Your task to perform on an android device: Open Google Maps and go to "Timeline" Image 0: 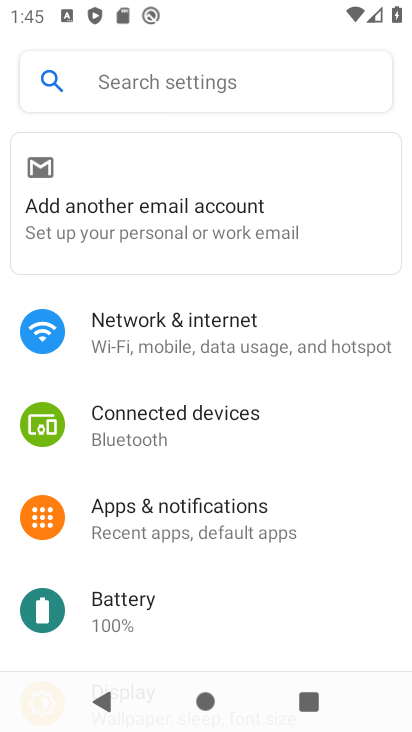
Step 0: press home button
Your task to perform on an android device: Open Google Maps and go to "Timeline" Image 1: 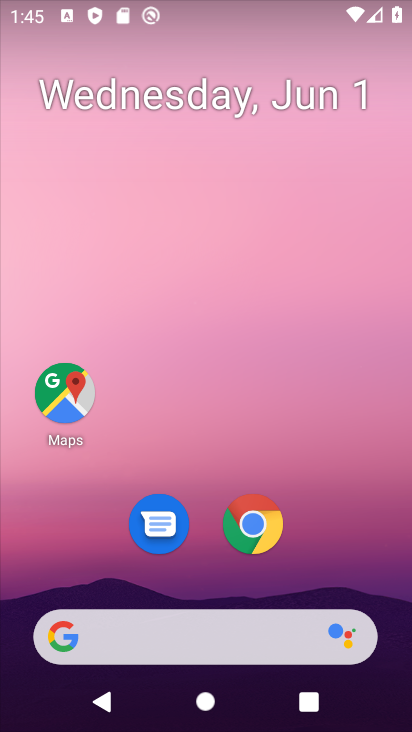
Step 1: click (60, 378)
Your task to perform on an android device: Open Google Maps and go to "Timeline" Image 2: 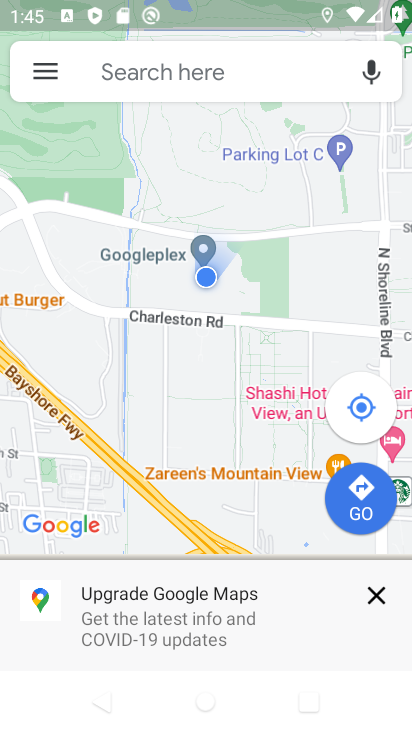
Step 2: click (46, 69)
Your task to perform on an android device: Open Google Maps and go to "Timeline" Image 3: 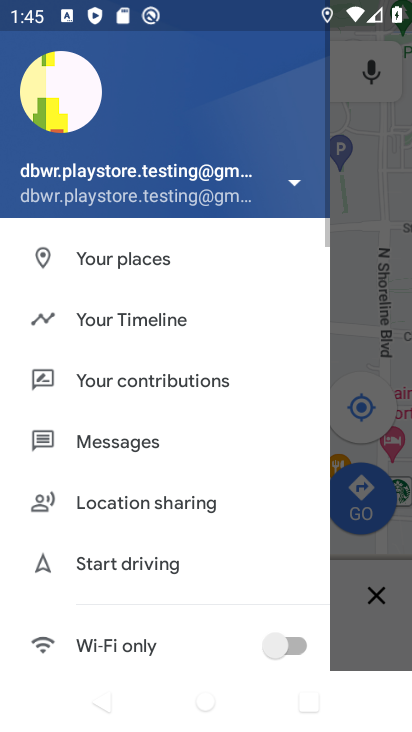
Step 3: click (155, 317)
Your task to perform on an android device: Open Google Maps and go to "Timeline" Image 4: 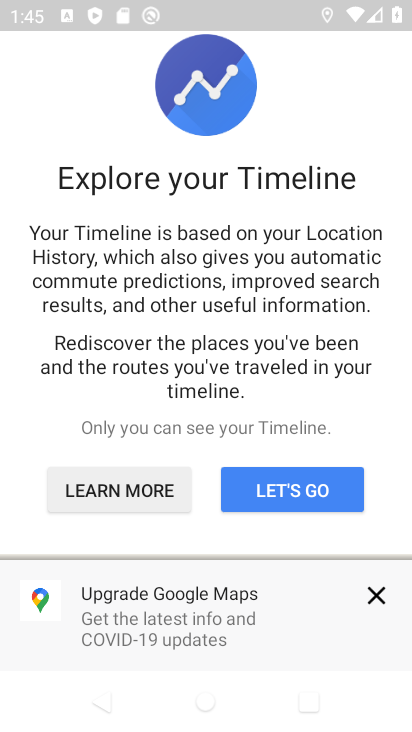
Step 4: click (291, 500)
Your task to perform on an android device: Open Google Maps and go to "Timeline" Image 5: 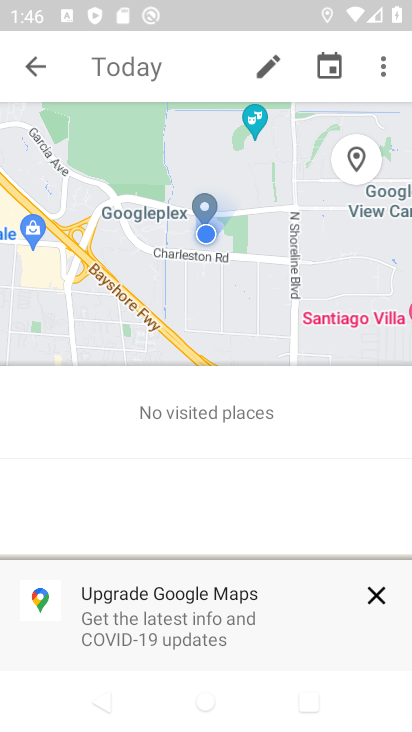
Step 5: task complete